Your task to perform on an android device: Set the phone to "Do not disturb". Image 0: 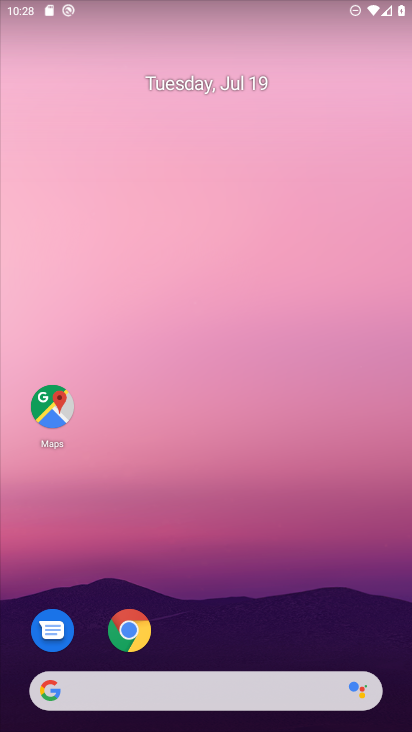
Step 0: drag from (216, 606) to (216, 236)
Your task to perform on an android device: Set the phone to "Do not disturb". Image 1: 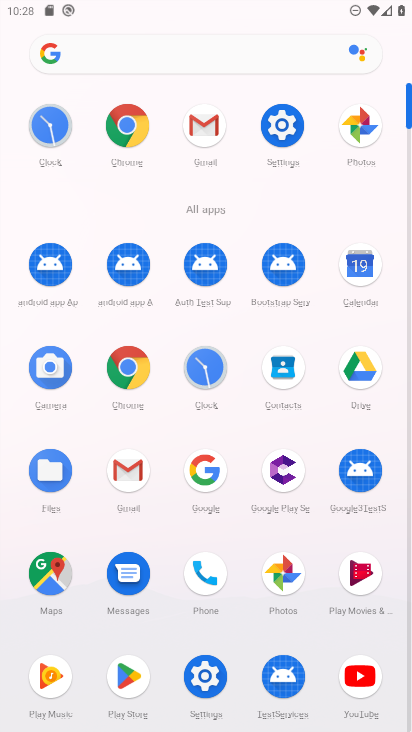
Step 1: click (271, 120)
Your task to perform on an android device: Set the phone to "Do not disturb". Image 2: 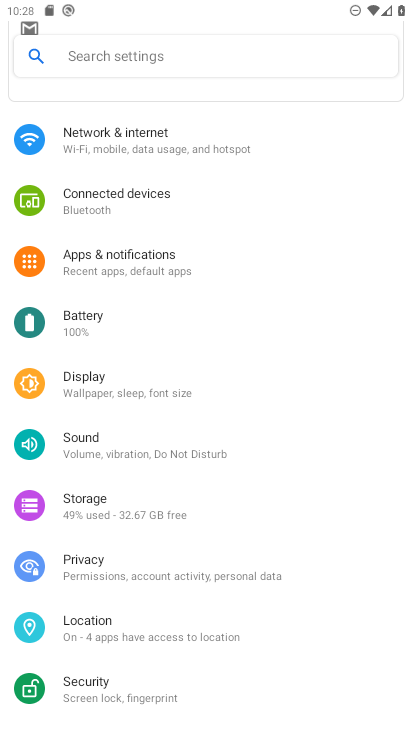
Step 2: click (106, 446)
Your task to perform on an android device: Set the phone to "Do not disturb". Image 3: 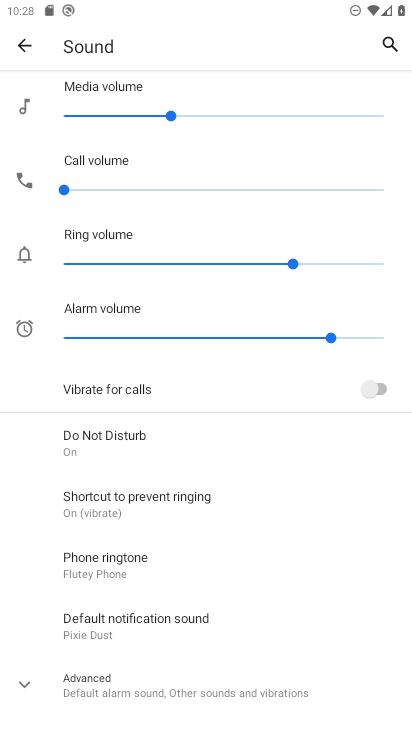
Step 3: click (165, 443)
Your task to perform on an android device: Set the phone to "Do not disturb". Image 4: 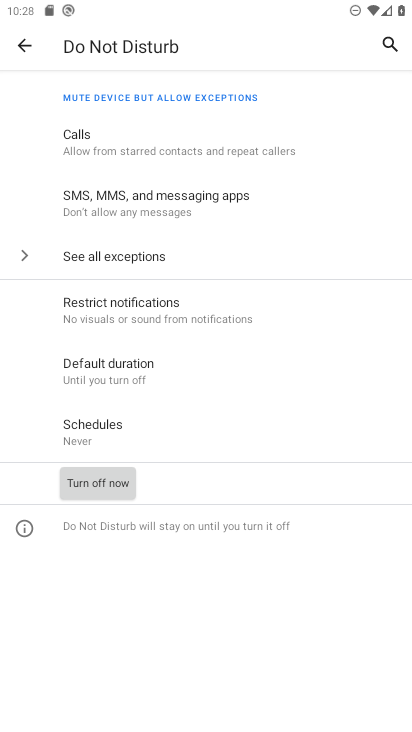
Step 4: task complete